Your task to perform on an android device: Go to accessibility settings Image 0: 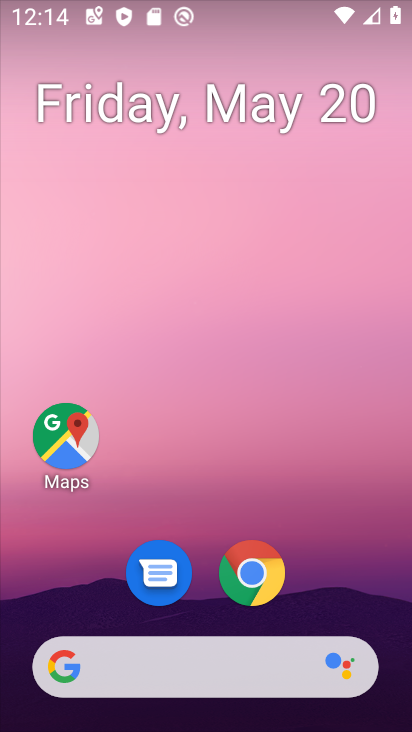
Step 0: drag from (321, 563) to (368, 96)
Your task to perform on an android device: Go to accessibility settings Image 1: 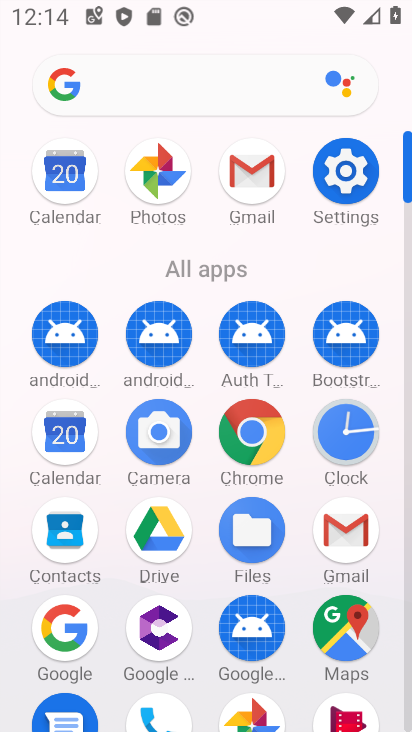
Step 1: click (346, 169)
Your task to perform on an android device: Go to accessibility settings Image 2: 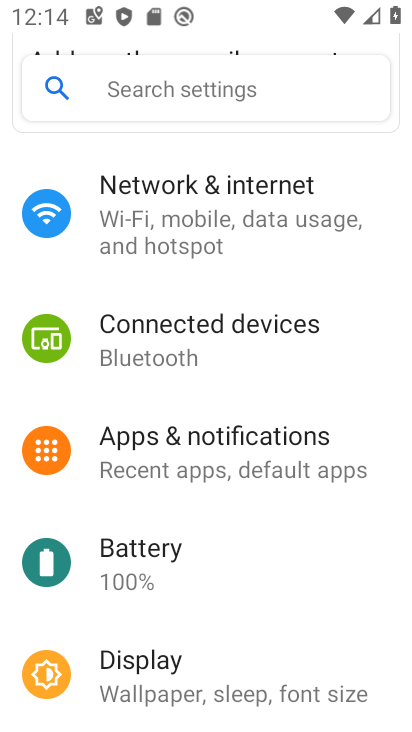
Step 2: drag from (266, 620) to (296, 42)
Your task to perform on an android device: Go to accessibility settings Image 3: 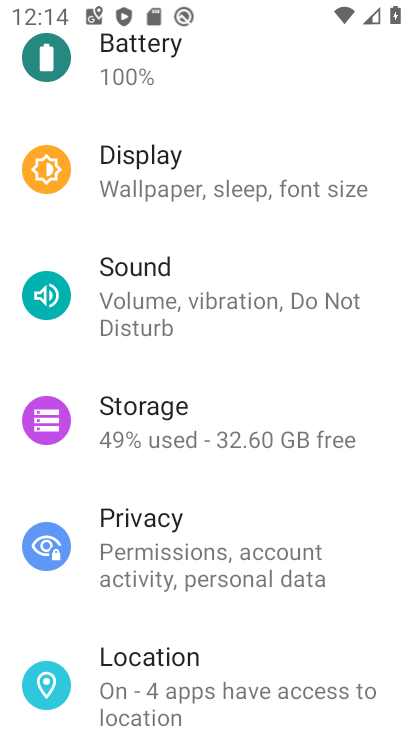
Step 3: drag from (205, 657) to (267, 113)
Your task to perform on an android device: Go to accessibility settings Image 4: 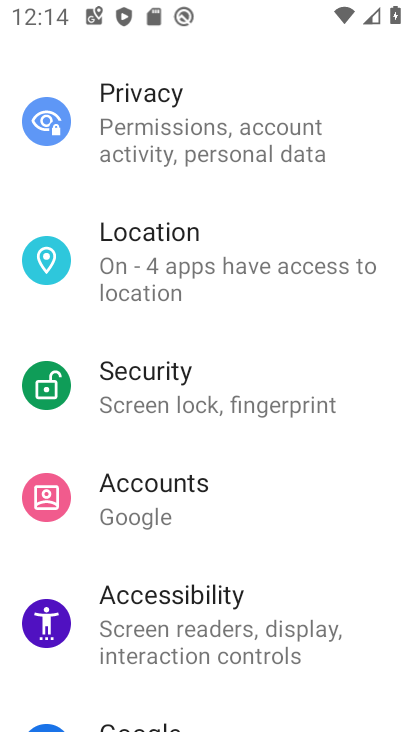
Step 4: click (185, 637)
Your task to perform on an android device: Go to accessibility settings Image 5: 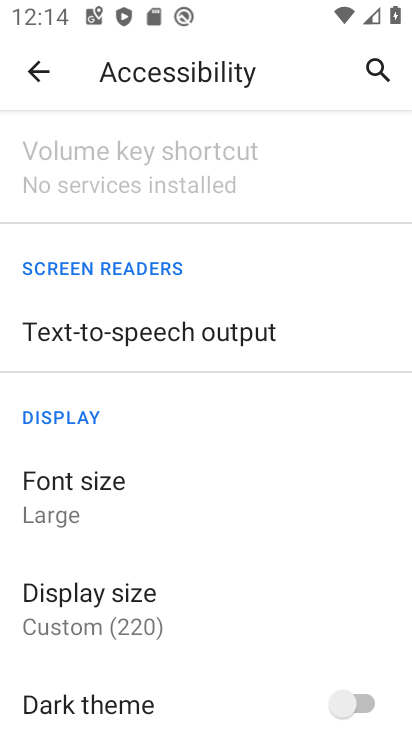
Step 5: task complete